Your task to perform on an android device: turn off sleep mode Image 0: 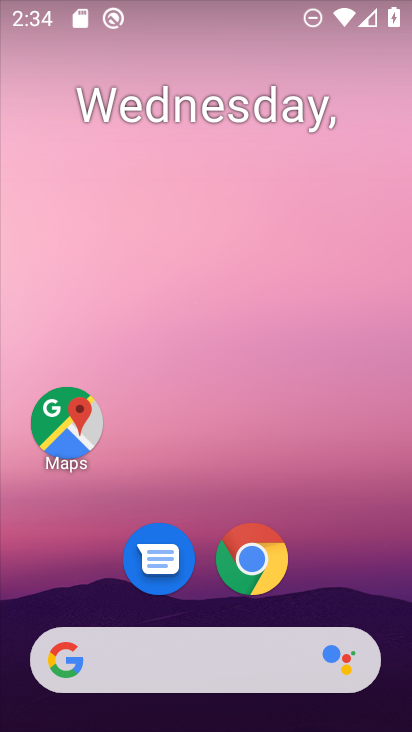
Step 0: press home button
Your task to perform on an android device: turn off sleep mode Image 1: 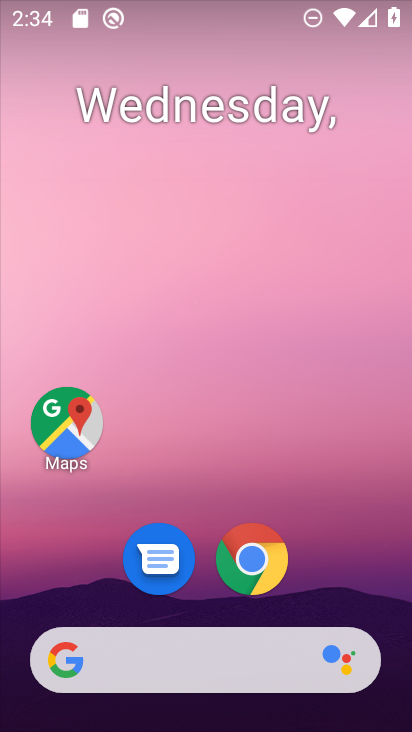
Step 1: drag from (358, 606) to (361, 46)
Your task to perform on an android device: turn off sleep mode Image 2: 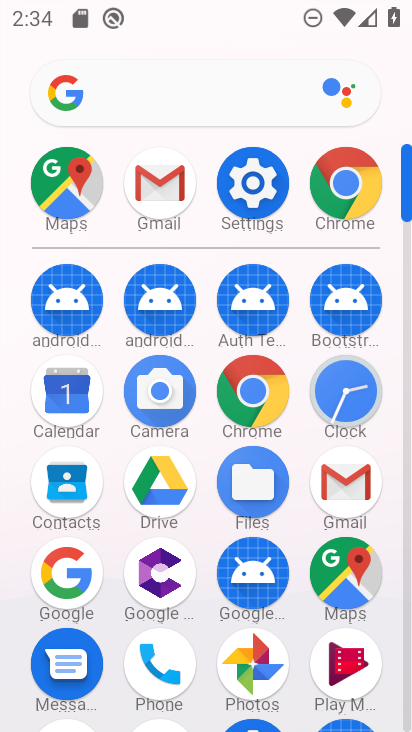
Step 2: click (243, 187)
Your task to perform on an android device: turn off sleep mode Image 3: 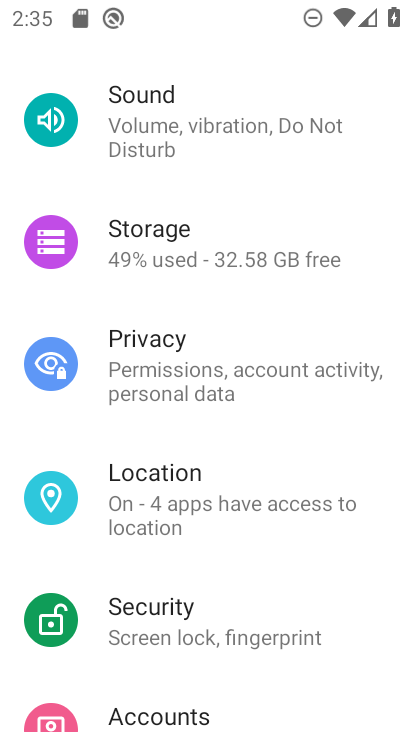
Step 3: drag from (190, 114) to (207, 409)
Your task to perform on an android device: turn off sleep mode Image 4: 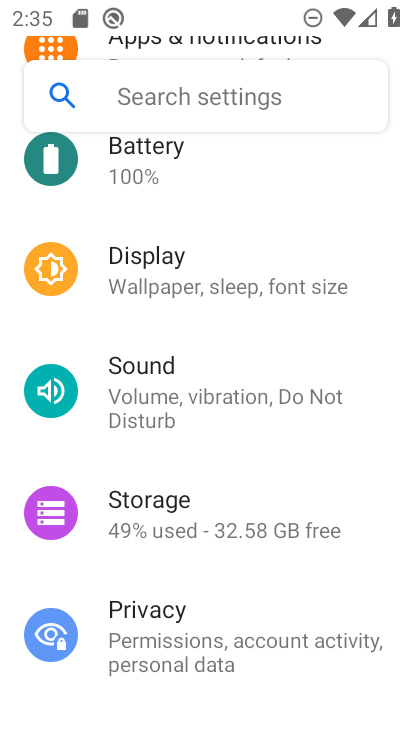
Step 4: click (164, 293)
Your task to perform on an android device: turn off sleep mode Image 5: 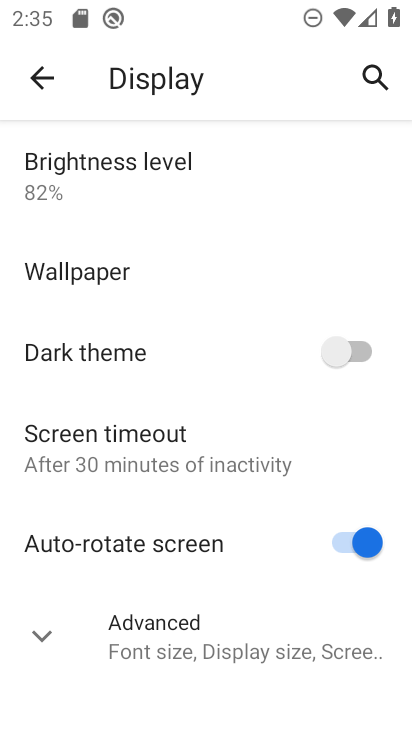
Step 5: task complete